Your task to perform on an android device: Open maps Image 0: 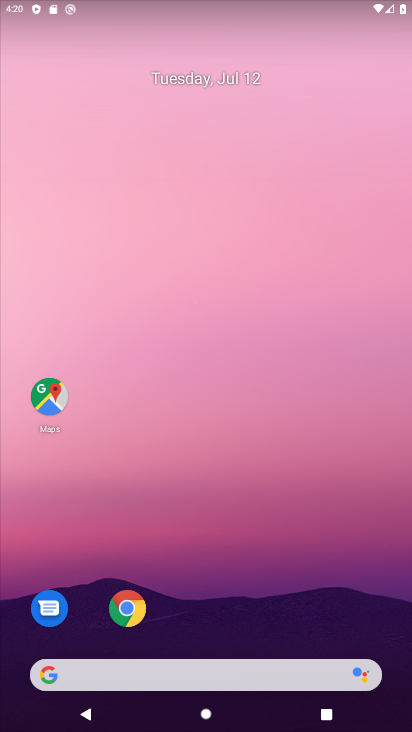
Step 0: click (46, 387)
Your task to perform on an android device: Open maps Image 1: 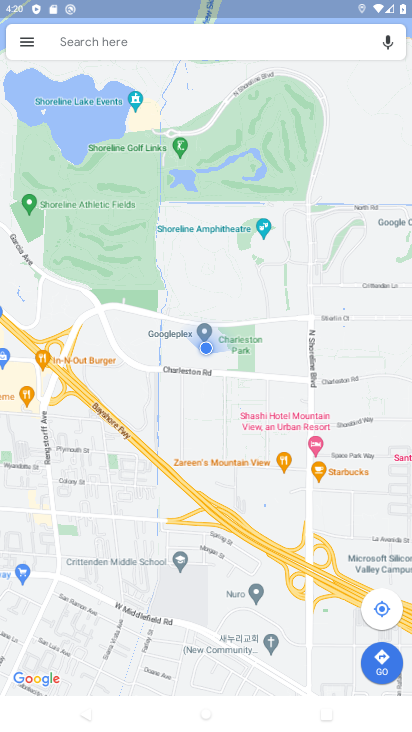
Step 1: task complete